Your task to perform on an android device: turn on the 24-hour format for clock Image 0: 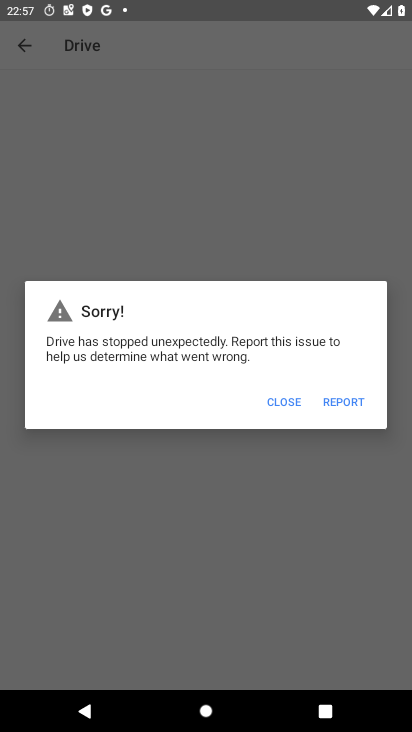
Step 0: press home button
Your task to perform on an android device: turn on the 24-hour format for clock Image 1: 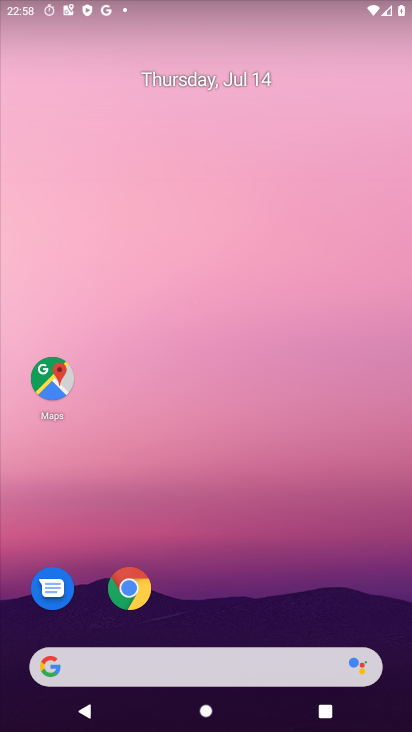
Step 1: drag from (223, 603) to (217, 95)
Your task to perform on an android device: turn on the 24-hour format for clock Image 2: 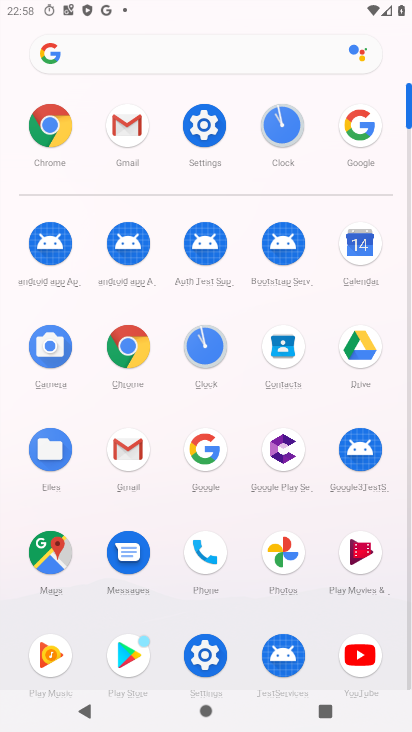
Step 2: click (204, 348)
Your task to perform on an android device: turn on the 24-hour format for clock Image 3: 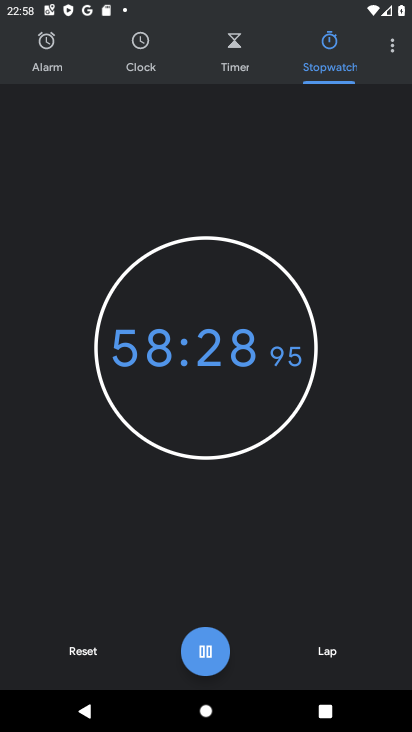
Step 3: click (389, 41)
Your task to perform on an android device: turn on the 24-hour format for clock Image 4: 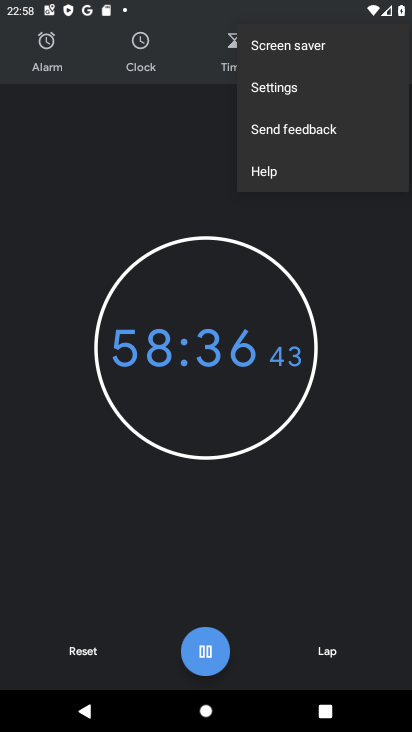
Step 4: click (305, 93)
Your task to perform on an android device: turn on the 24-hour format for clock Image 5: 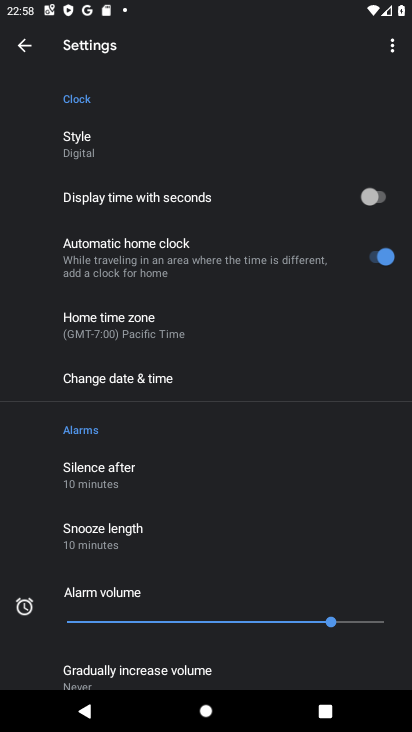
Step 5: click (151, 378)
Your task to perform on an android device: turn on the 24-hour format for clock Image 6: 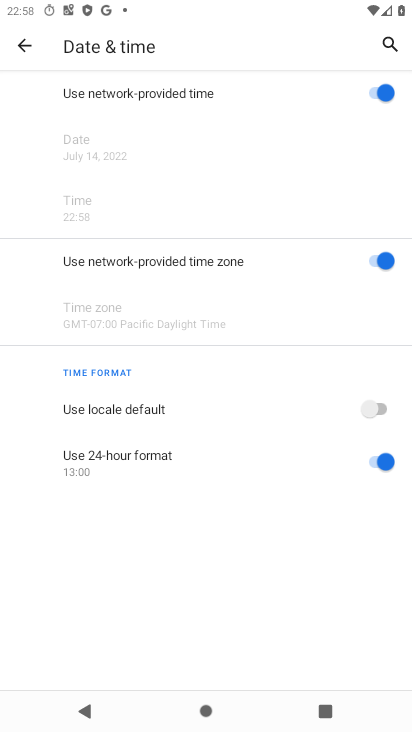
Step 6: task complete